Your task to perform on an android device: Go to Yahoo.com Image 0: 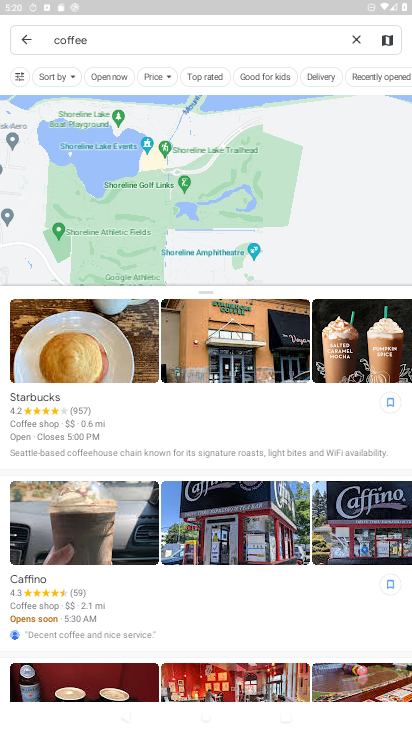
Step 0: press home button
Your task to perform on an android device: Go to Yahoo.com Image 1: 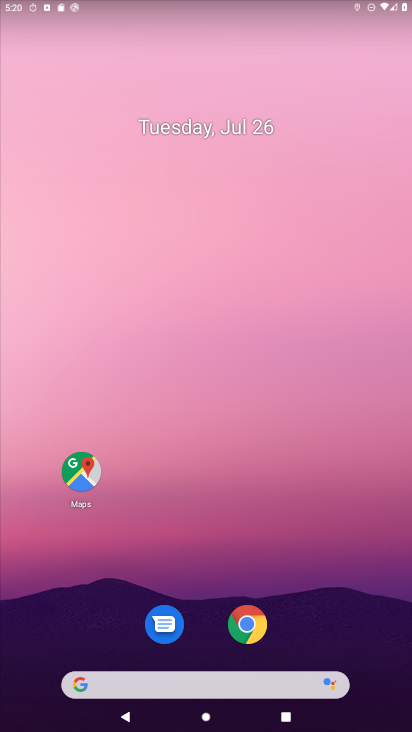
Step 1: drag from (187, 642) to (250, 71)
Your task to perform on an android device: Go to Yahoo.com Image 2: 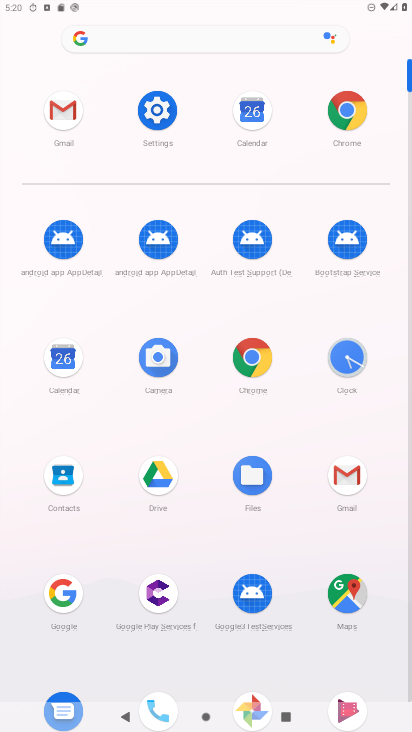
Step 2: click (258, 371)
Your task to perform on an android device: Go to Yahoo.com Image 3: 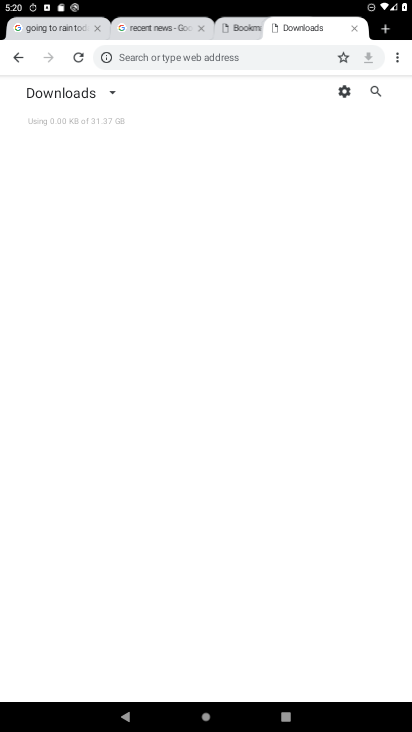
Step 3: click (201, 54)
Your task to perform on an android device: Go to Yahoo.com Image 4: 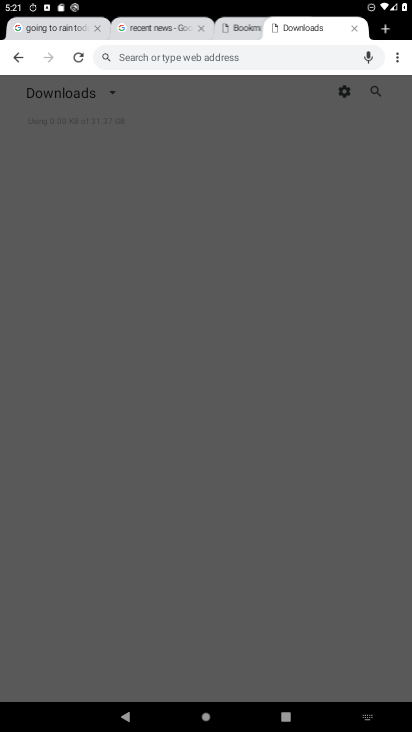
Step 4: type "yahoo.com"
Your task to perform on an android device: Go to Yahoo.com Image 5: 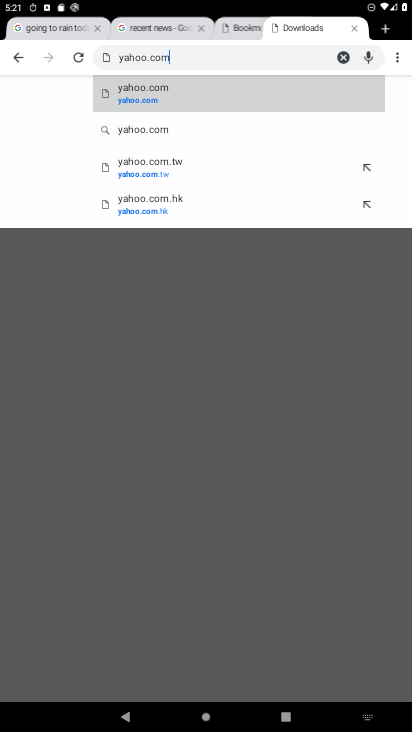
Step 5: click (254, 92)
Your task to perform on an android device: Go to Yahoo.com Image 6: 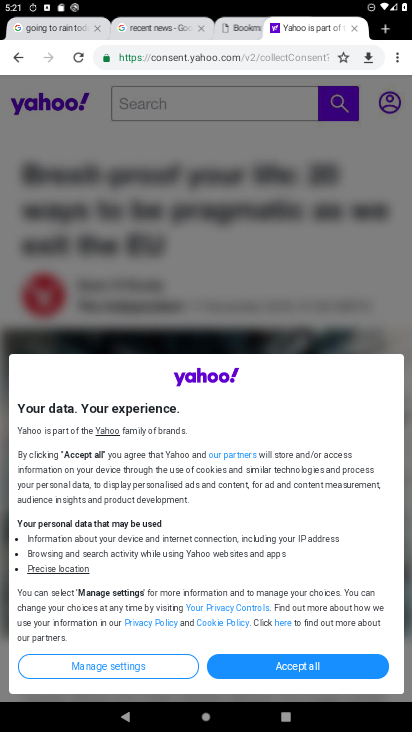
Step 6: task complete